Your task to perform on an android device: turn vacation reply on in the gmail app Image 0: 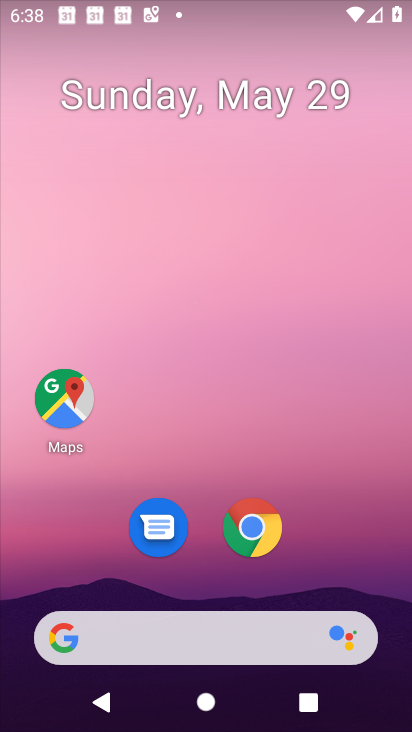
Step 0: drag from (412, 583) to (323, 80)
Your task to perform on an android device: turn vacation reply on in the gmail app Image 1: 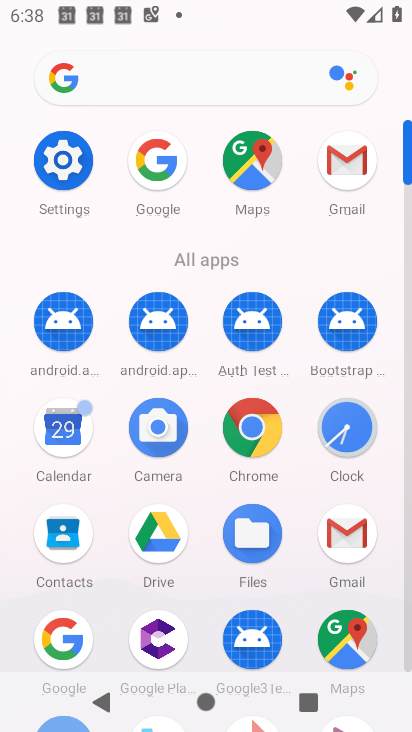
Step 1: click (352, 572)
Your task to perform on an android device: turn vacation reply on in the gmail app Image 2: 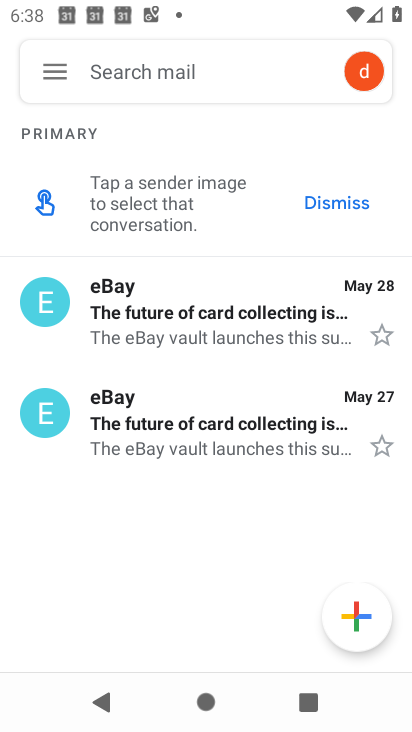
Step 2: click (65, 79)
Your task to perform on an android device: turn vacation reply on in the gmail app Image 3: 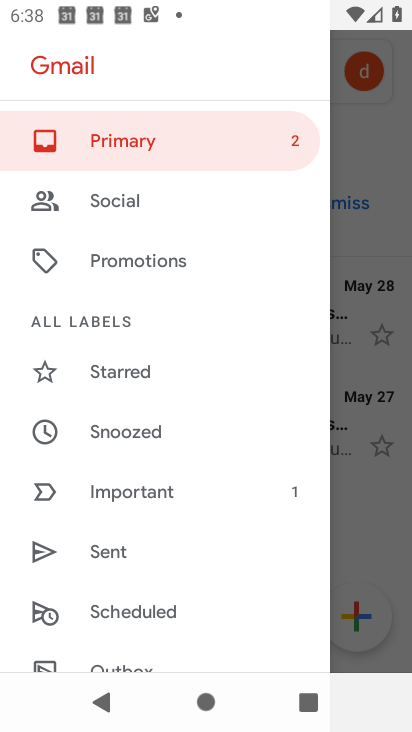
Step 3: drag from (83, 569) to (125, 99)
Your task to perform on an android device: turn vacation reply on in the gmail app Image 4: 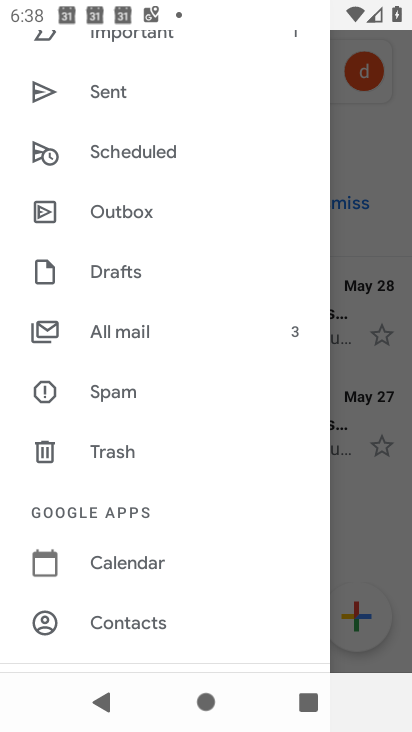
Step 4: drag from (77, 649) to (162, 129)
Your task to perform on an android device: turn vacation reply on in the gmail app Image 5: 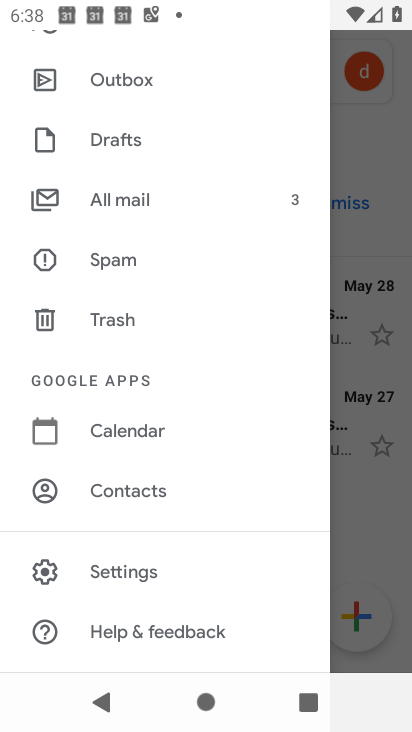
Step 5: click (166, 578)
Your task to perform on an android device: turn vacation reply on in the gmail app Image 6: 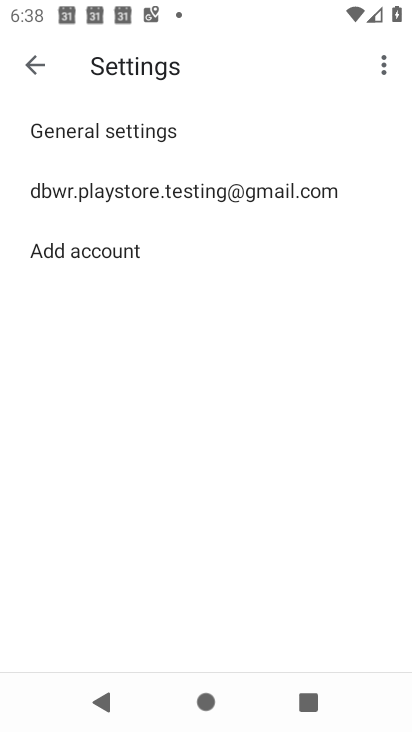
Step 6: click (222, 222)
Your task to perform on an android device: turn vacation reply on in the gmail app Image 7: 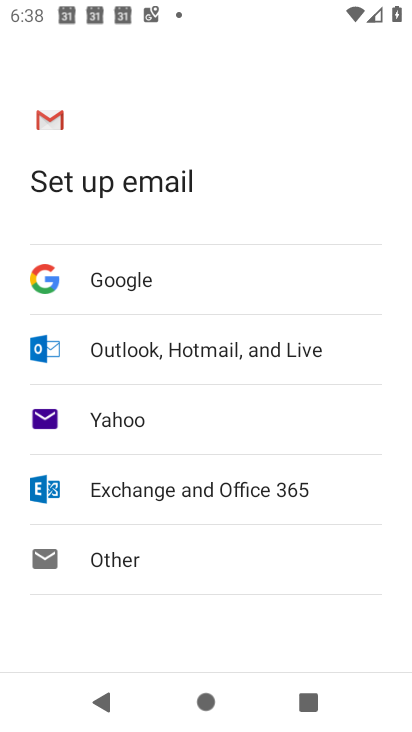
Step 7: press back button
Your task to perform on an android device: turn vacation reply on in the gmail app Image 8: 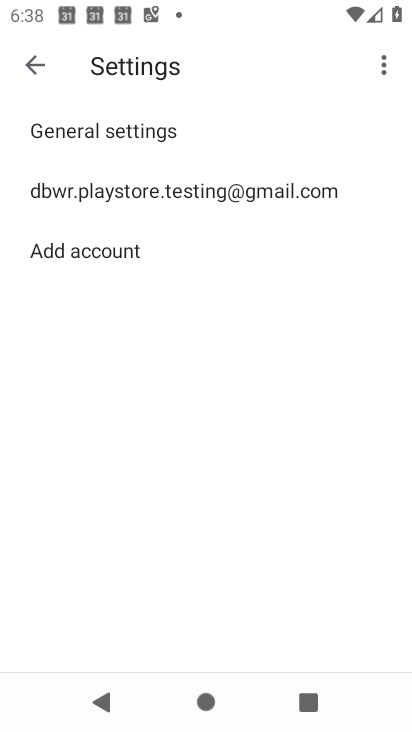
Step 8: click (277, 187)
Your task to perform on an android device: turn vacation reply on in the gmail app Image 9: 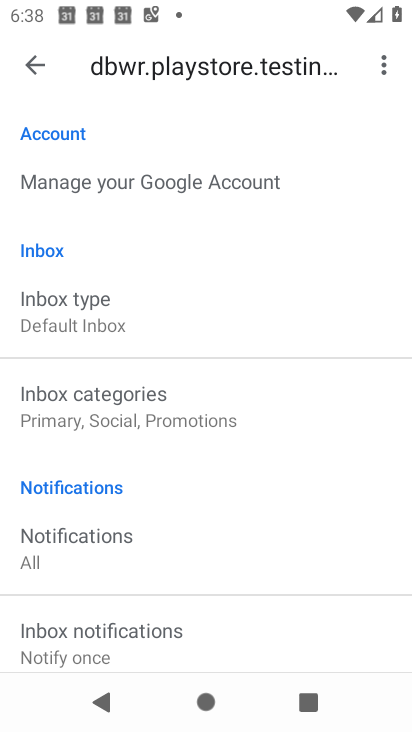
Step 9: drag from (128, 585) to (182, 98)
Your task to perform on an android device: turn vacation reply on in the gmail app Image 10: 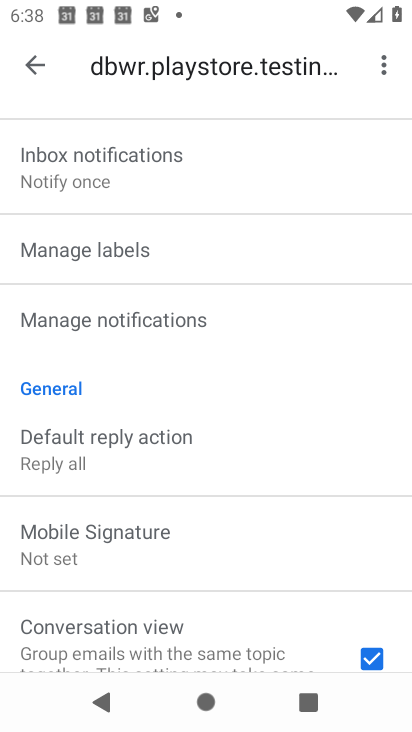
Step 10: drag from (77, 630) to (265, 70)
Your task to perform on an android device: turn vacation reply on in the gmail app Image 11: 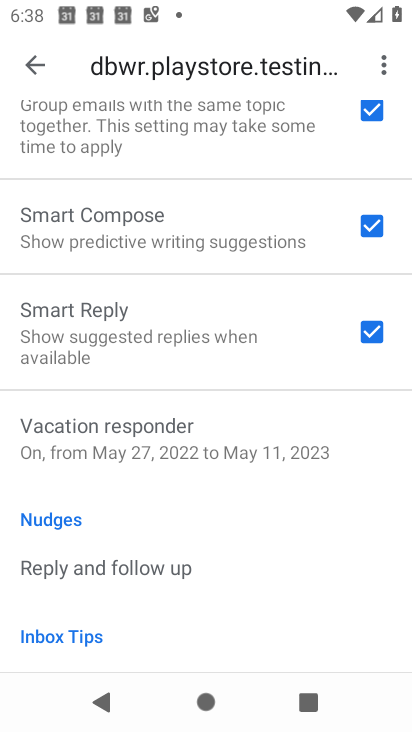
Step 11: click (138, 437)
Your task to perform on an android device: turn vacation reply on in the gmail app Image 12: 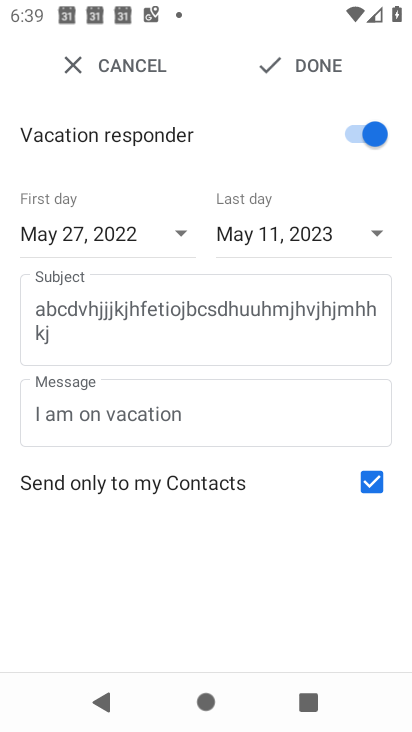
Step 12: task complete